Your task to perform on an android device: add a label to a message in the gmail app Image 0: 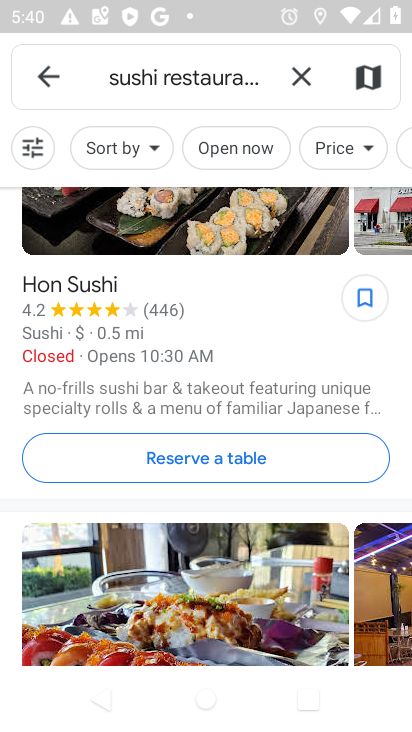
Step 0: press home button
Your task to perform on an android device: add a label to a message in the gmail app Image 1: 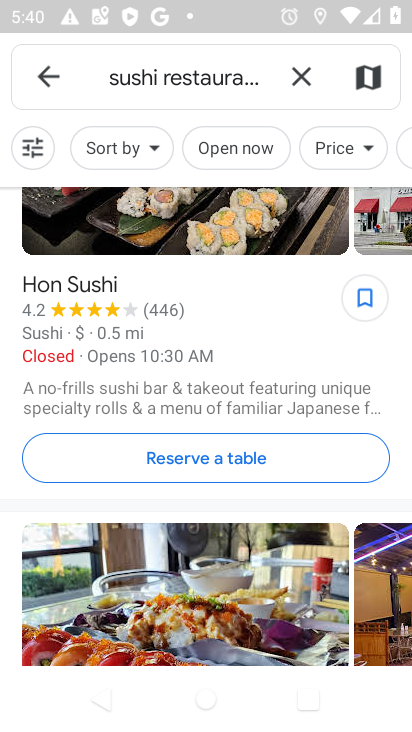
Step 1: press home button
Your task to perform on an android device: add a label to a message in the gmail app Image 2: 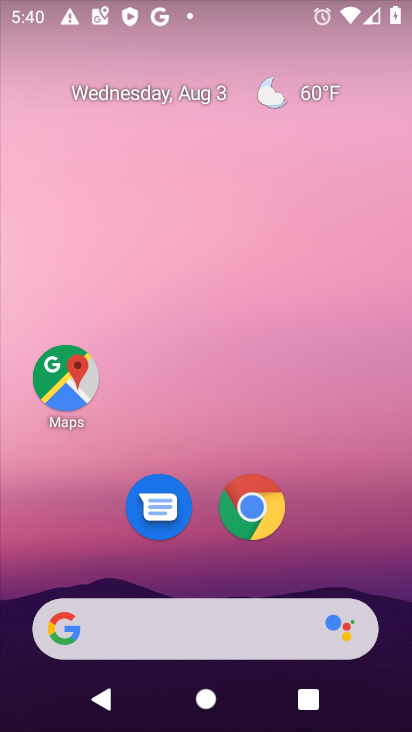
Step 2: drag from (375, 537) to (356, 7)
Your task to perform on an android device: add a label to a message in the gmail app Image 3: 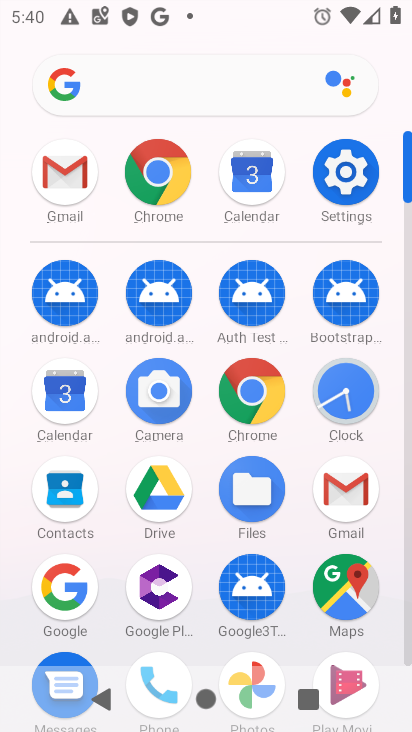
Step 3: drag from (293, 536) to (295, 270)
Your task to perform on an android device: add a label to a message in the gmail app Image 4: 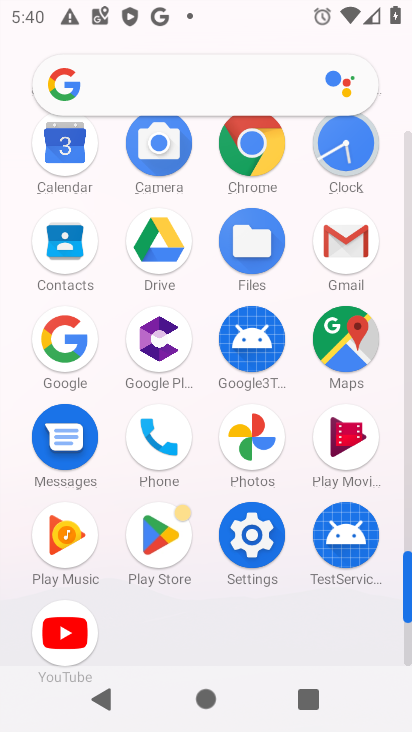
Step 4: click (339, 242)
Your task to perform on an android device: add a label to a message in the gmail app Image 5: 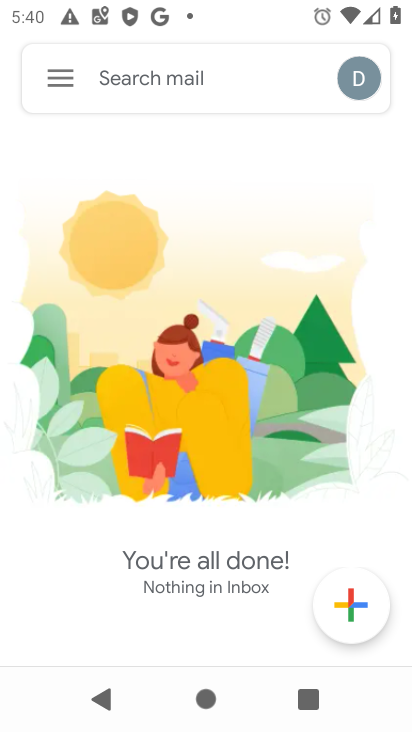
Step 5: click (58, 76)
Your task to perform on an android device: add a label to a message in the gmail app Image 6: 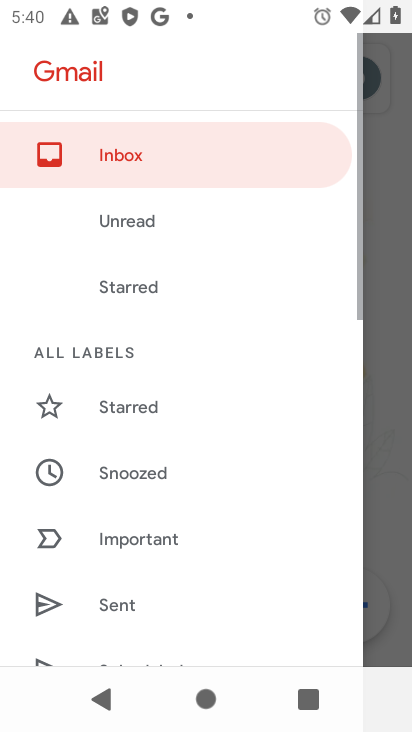
Step 6: drag from (170, 600) to (220, 77)
Your task to perform on an android device: add a label to a message in the gmail app Image 7: 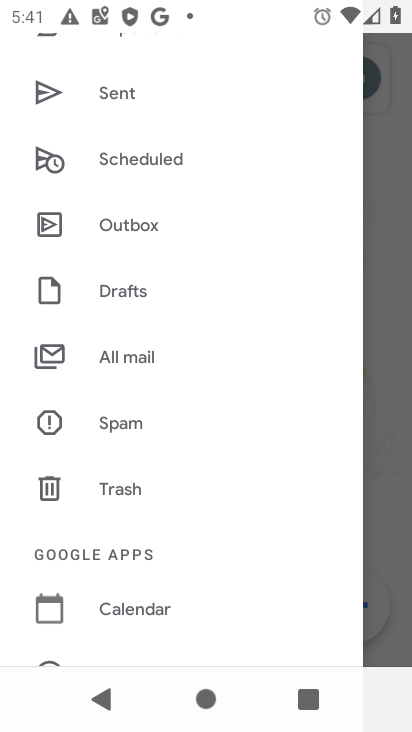
Step 7: click (145, 360)
Your task to perform on an android device: add a label to a message in the gmail app Image 8: 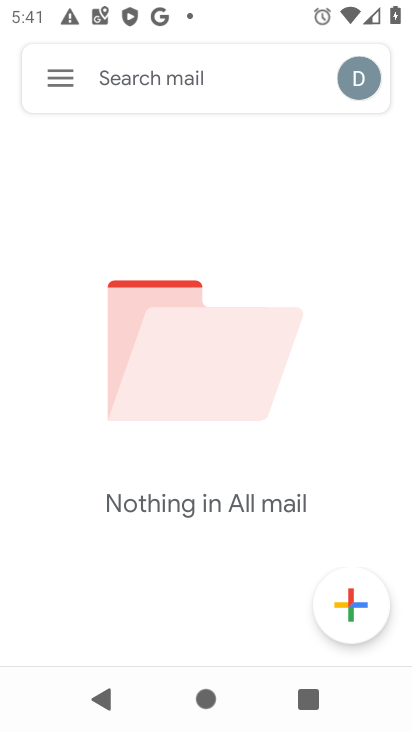
Step 8: task complete